Your task to perform on an android device: How do I get to the nearest T-Mobile Store? Image 0: 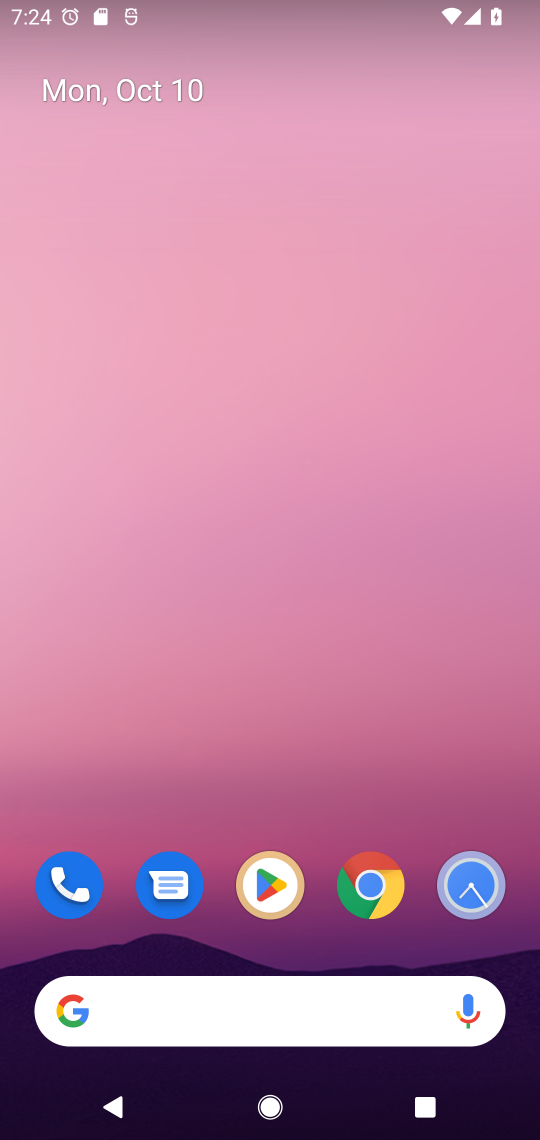
Step 0: click (354, 865)
Your task to perform on an android device: How do I get to the nearest T-Mobile Store? Image 1: 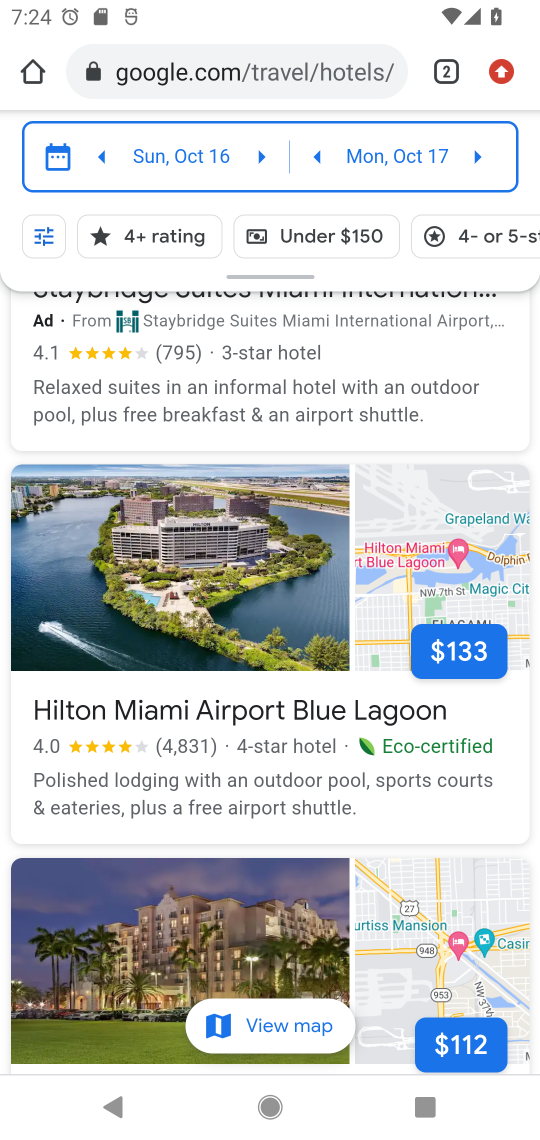
Step 1: click (274, 84)
Your task to perform on an android device: How do I get to the nearest T-Mobile Store? Image 2: 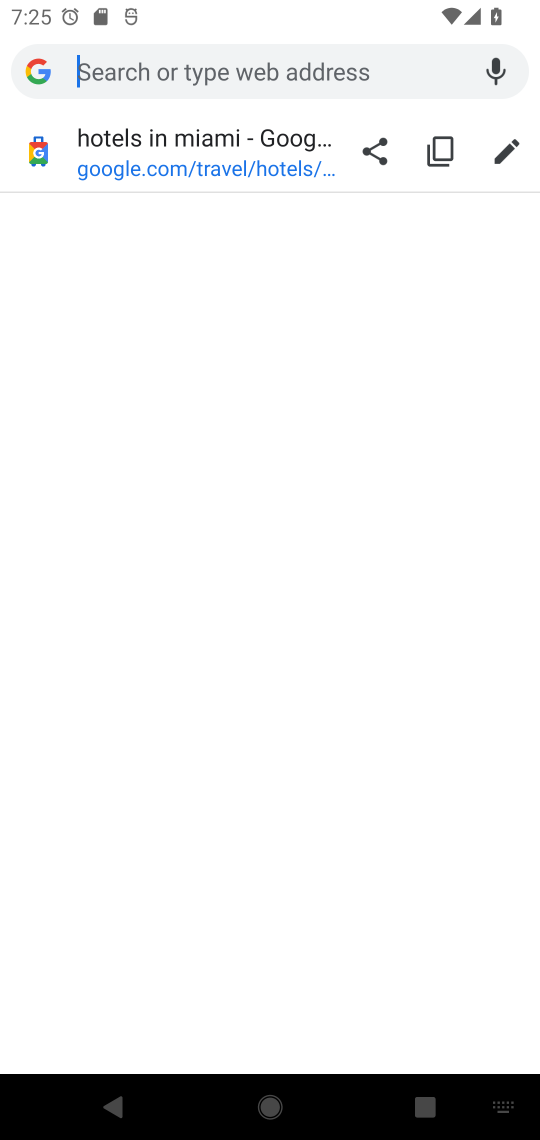
Step 2: type "nearest T-Mobile Store"
Your task to perform on an android device: How do I get to the nearest T-Mobile Store? Image 3: 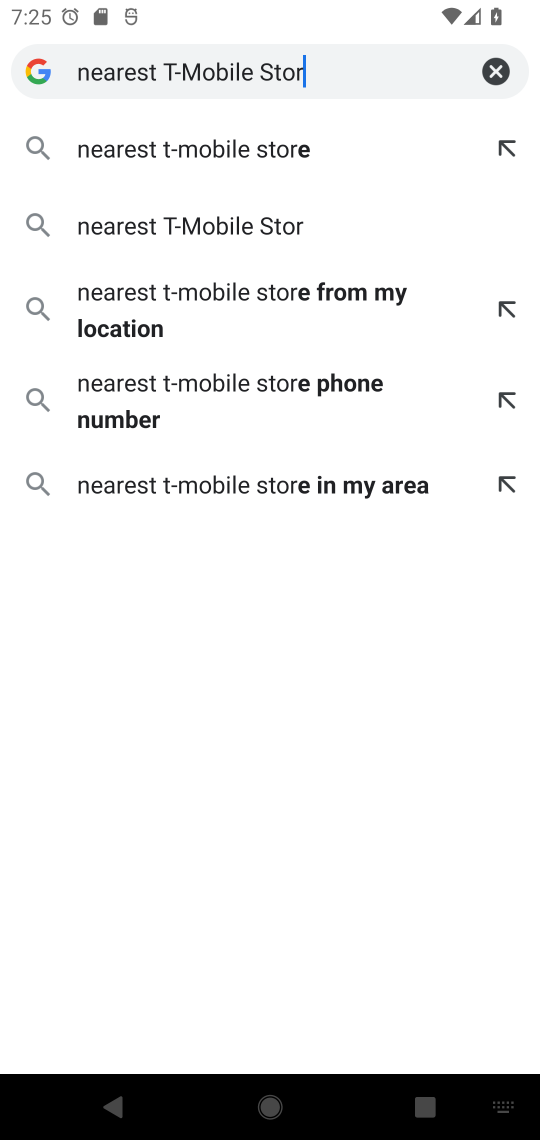
Step 3: type ""
Your task to perform on an android device: How do I get to the nearest T-Mobile Store? Image 4: 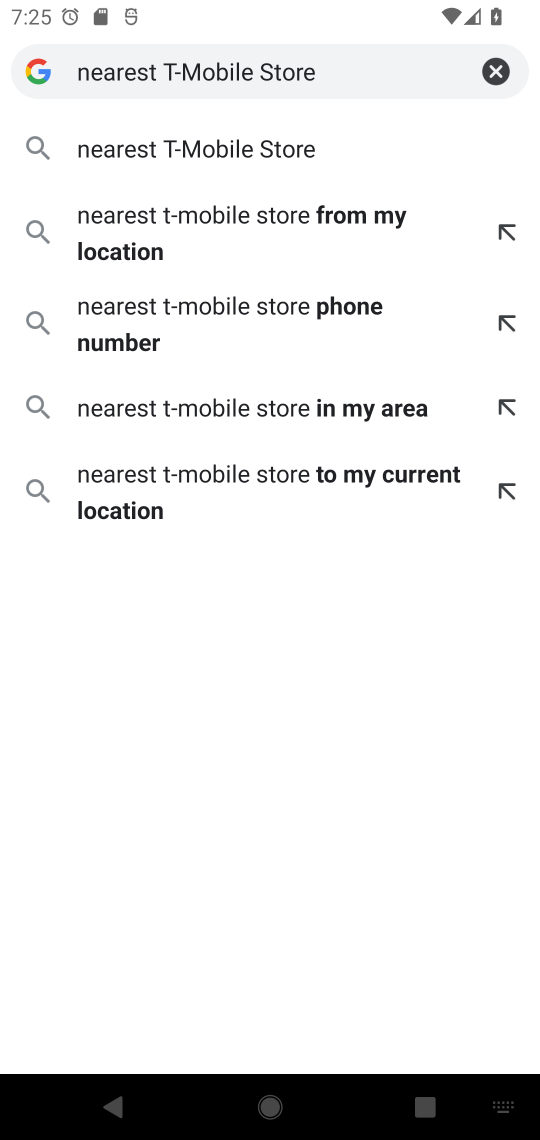
Step 4: click (164, 144)
Your task to perform on an android device: How do I get to the nearest T-Mobile Store? Image 5: 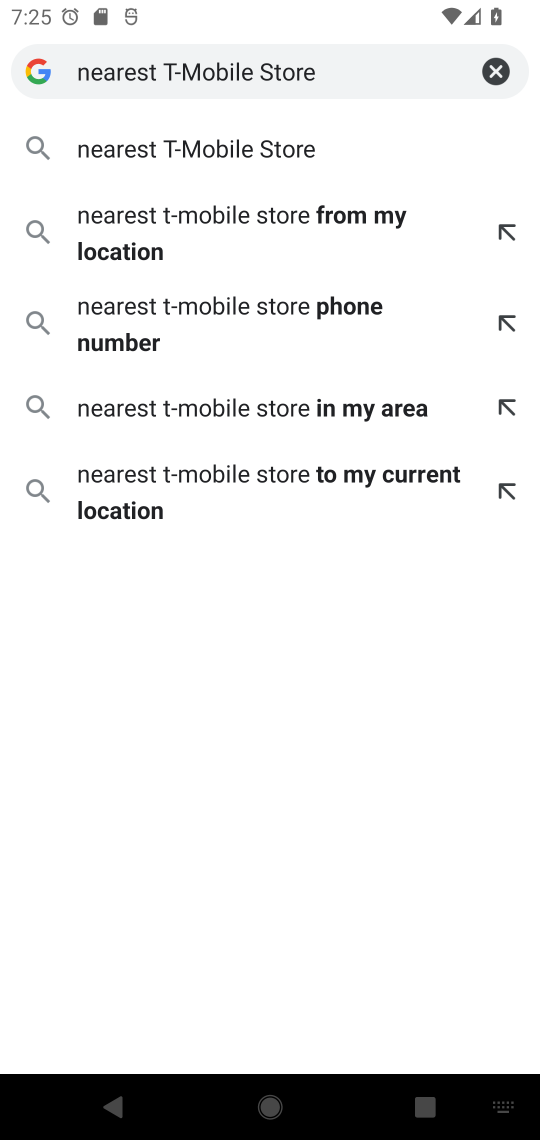
Step 5: click (164, 144)
Your task to perform on an android device: How do I get to the nearest T-Mobile Store? Image 6: 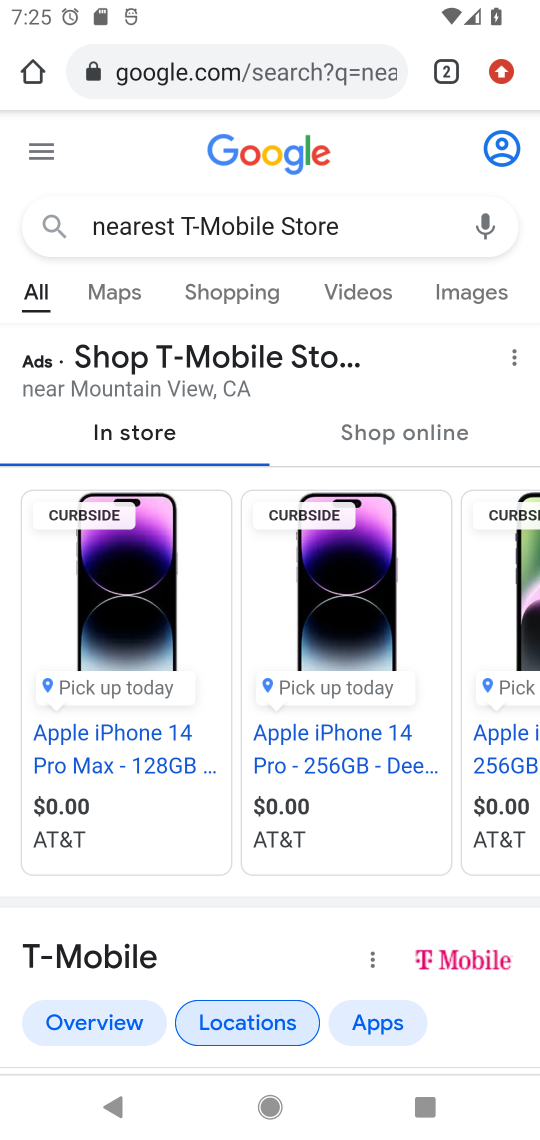
Step 6: drag from (305, 891) to (290, 7)
Your task to perform on an android device: How do I get to the nearest T-Mobile Store? Image 7: 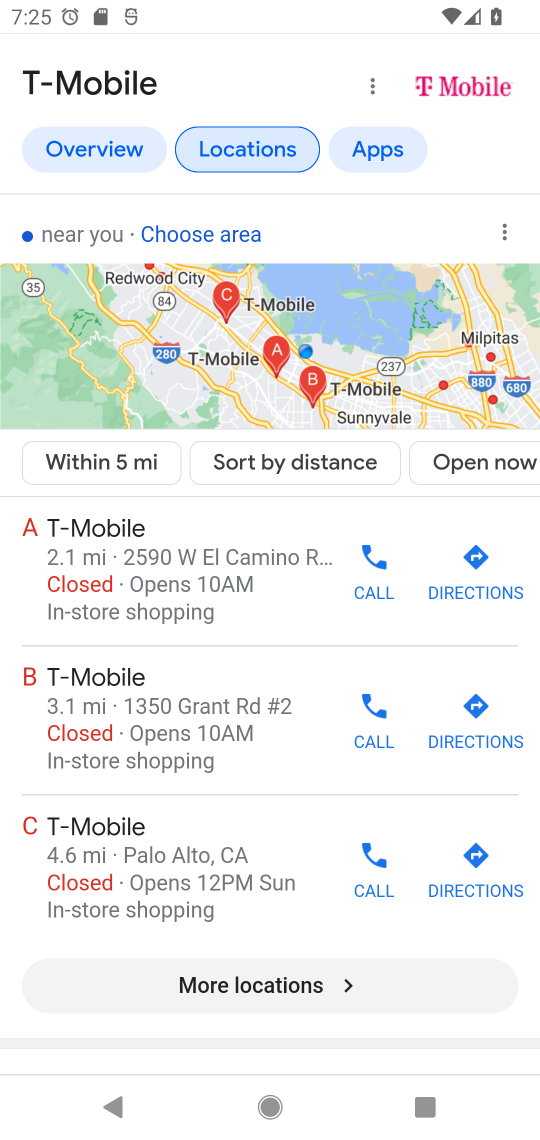
Step 7: click (276, 975)
Your task to perform on an android device: How do I get to the nearest T-Mobile Store? Image 8: 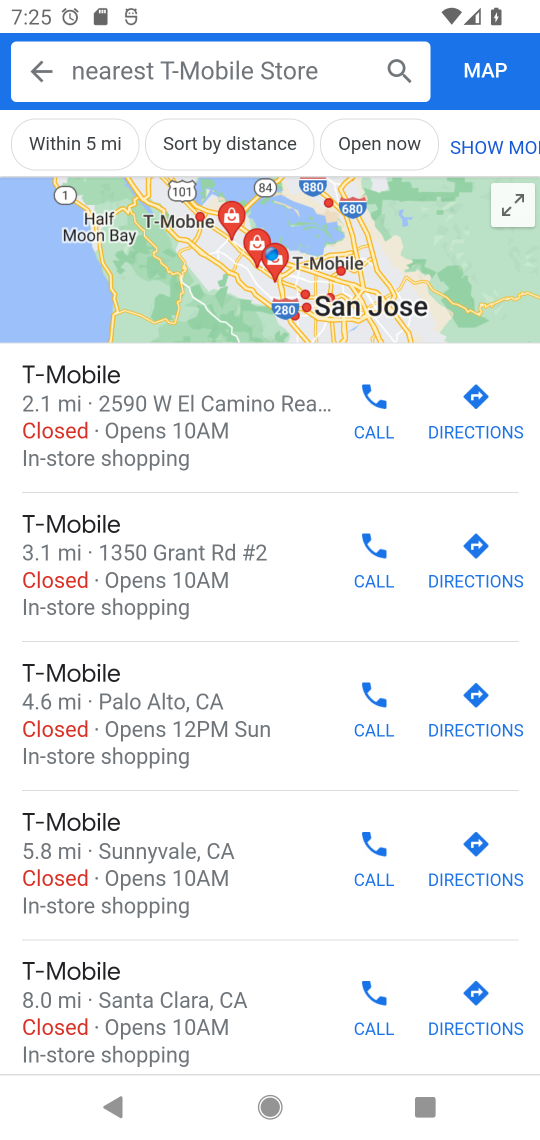
Step 8: task complete